Your task to perform on an android device: uninstall "Walmart Shopping & Grocery" Image 0: 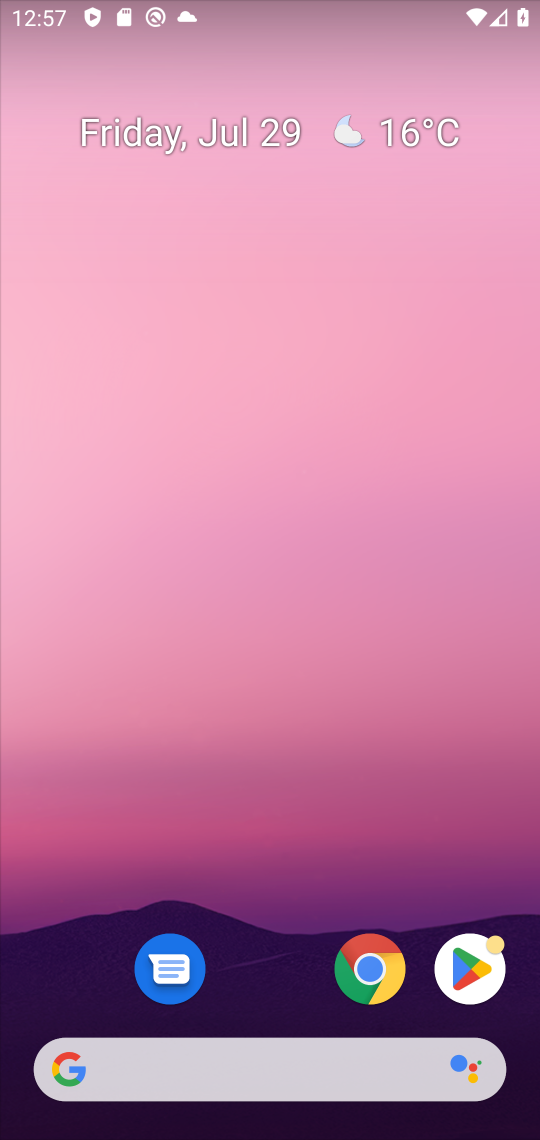
Step 0: press home button
Your task to perform on an android device: uninstall "Walmart Shopping & Grocery" Image 1: 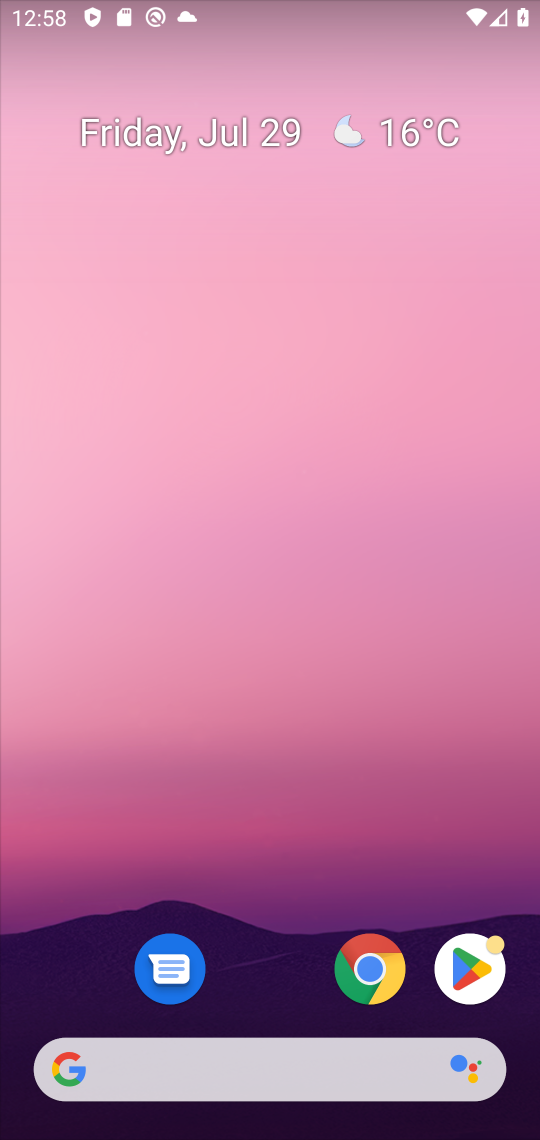
Step 1: click (484, 959)
Your task to perform on an android device: uninstall "Walmart Shopping & Grocery" Image 2: 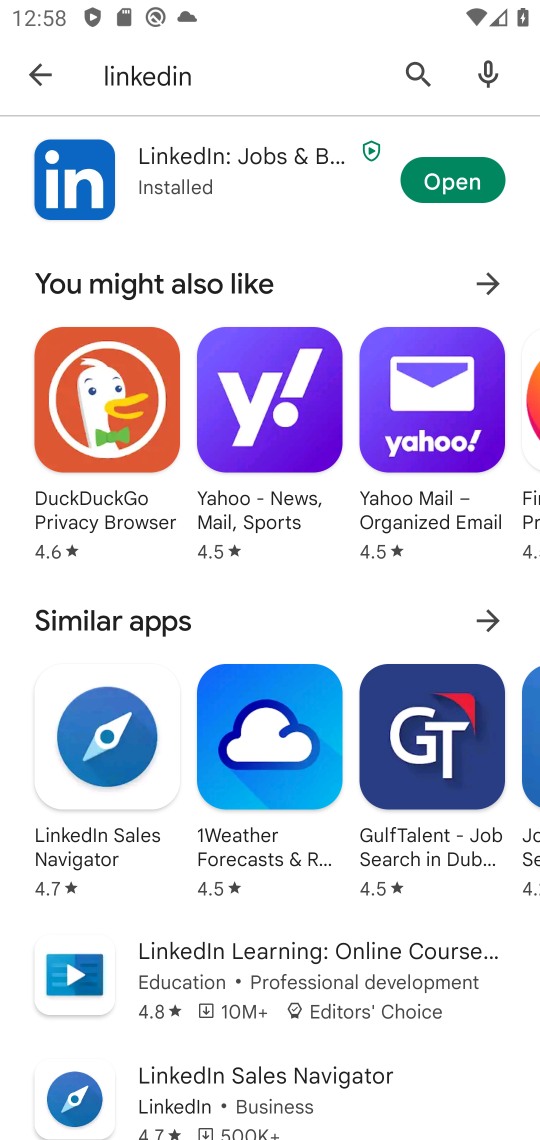
Step 2: click (423, 77)
Your task to perform on an android device: uninstall "Walmart Shopping & Grocery" Image 3: 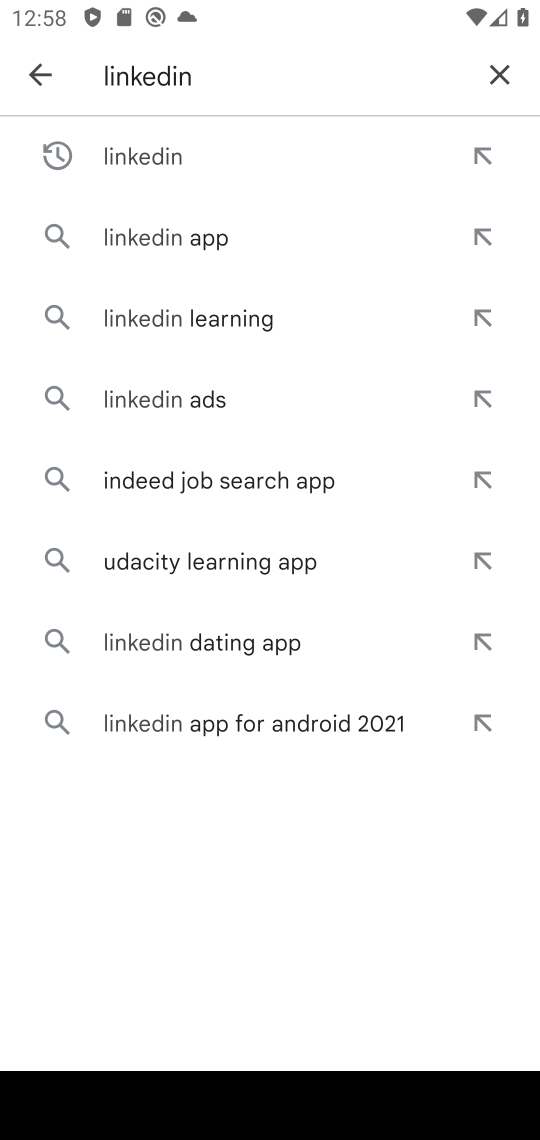
Step 3: click (498, 72)
Your task to perform on an android device: uninstall "Walmart Shopping & Grocery" Image 4: 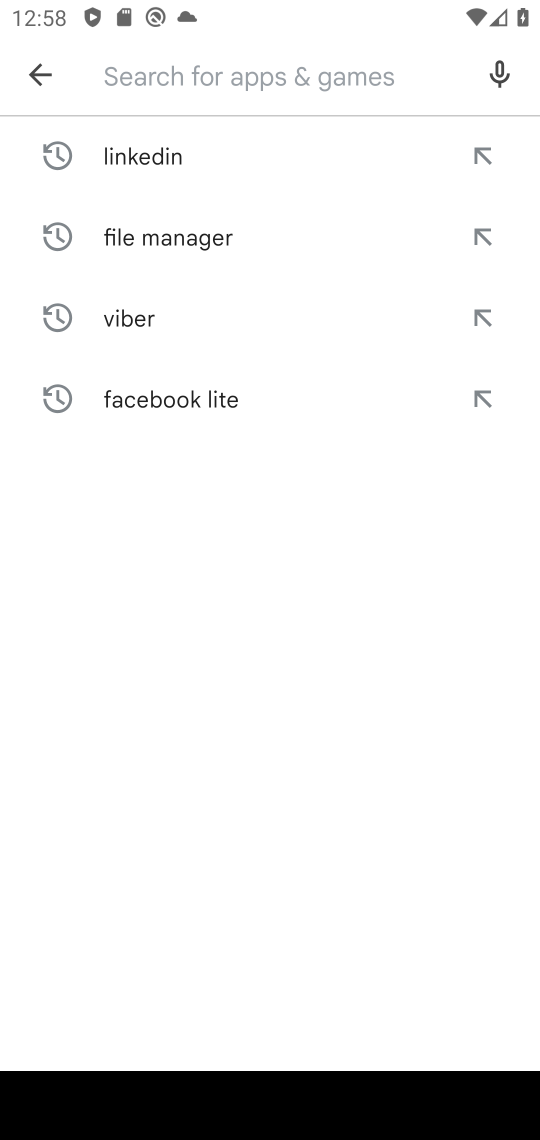
Step 4: type "walmart"
Your task to perform on an android device: uninstall "Walmart Shopping & Grocery" Image 5: 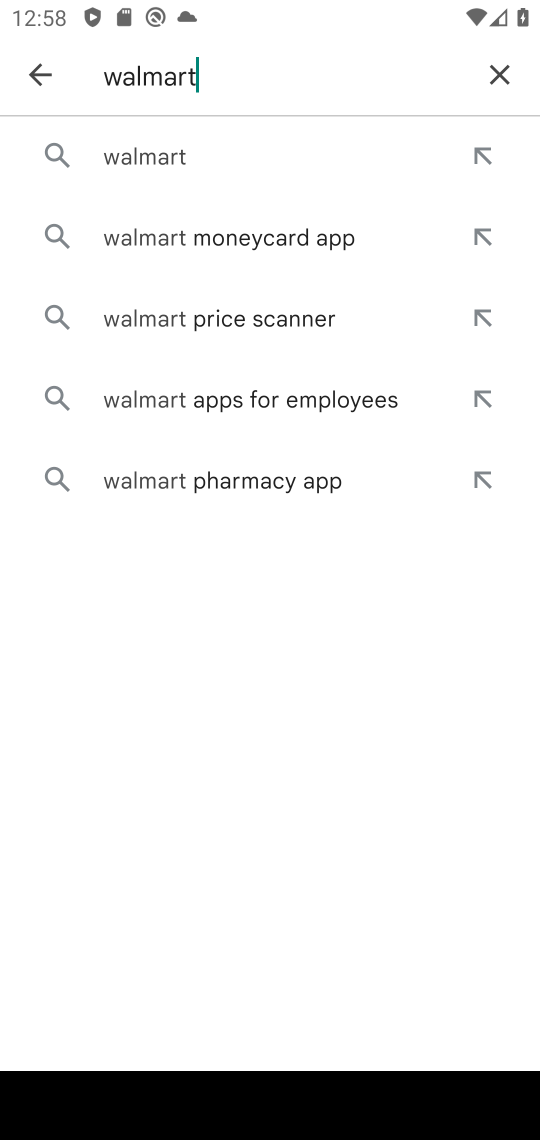
Step 5: click (143, 165)
Your task to perform on an android device: uninstall "Walmart Shopping & Grocery" Image 6: 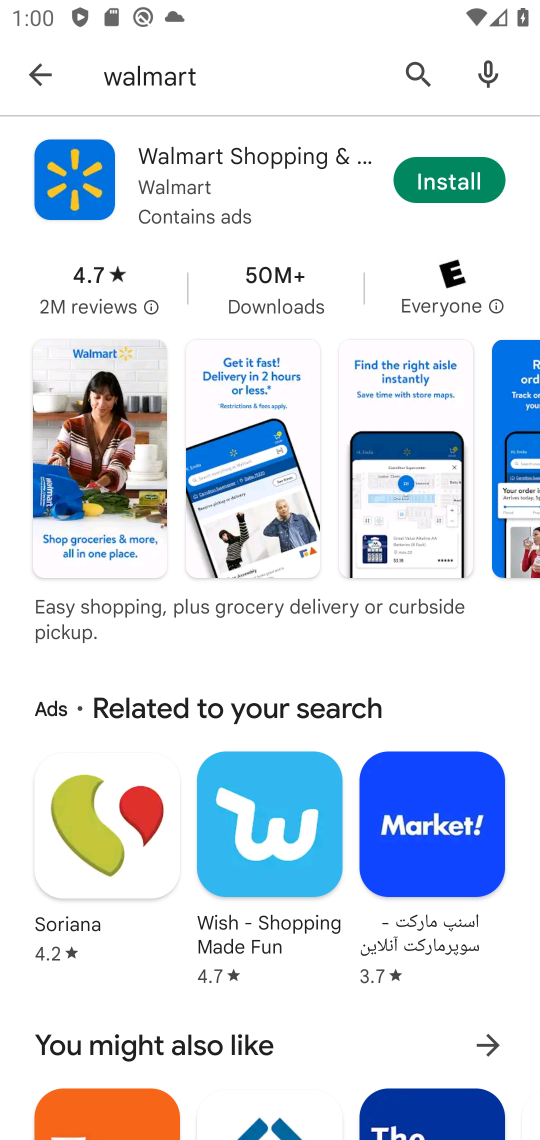
Step 6: task complete